Your task to perform on an android device: Open Yahoo.com Image 0: 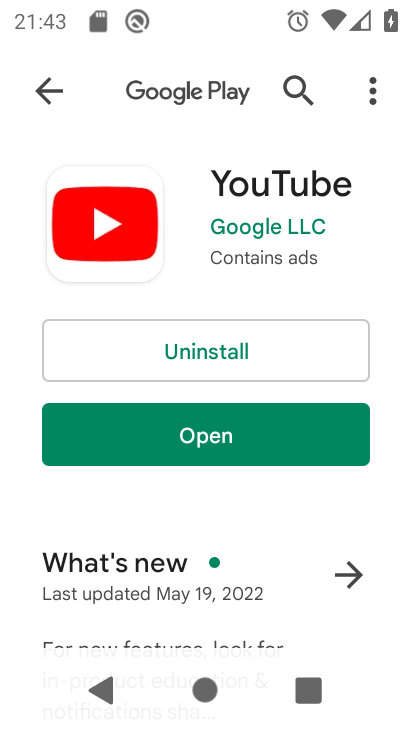
Step 0: press home button
Your task to perform on an android device: Open Yahoo.com Image 1: 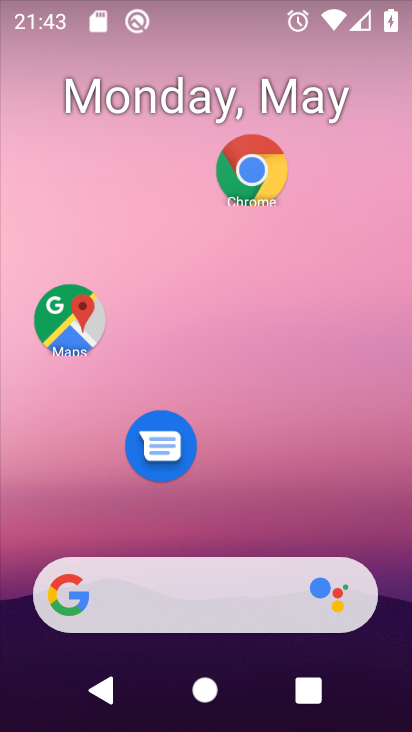
Step 1: click (252, 159)
Your task to perform on an android device: Open Yahoo.com Image 2: 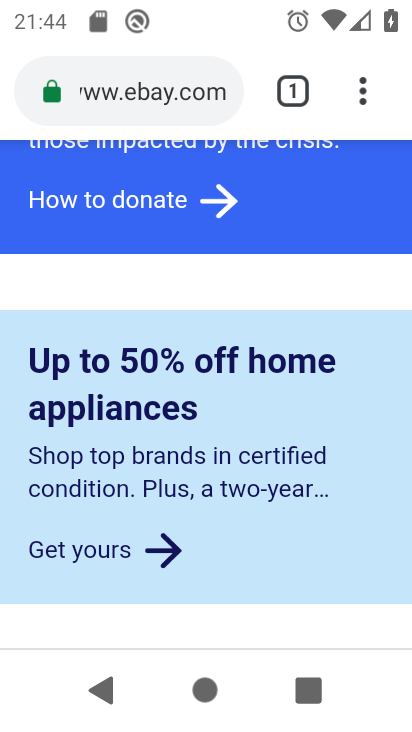
Step 2: click (292, 85)
Your task to perform on an android device: Open Yahoo.com Image 3: 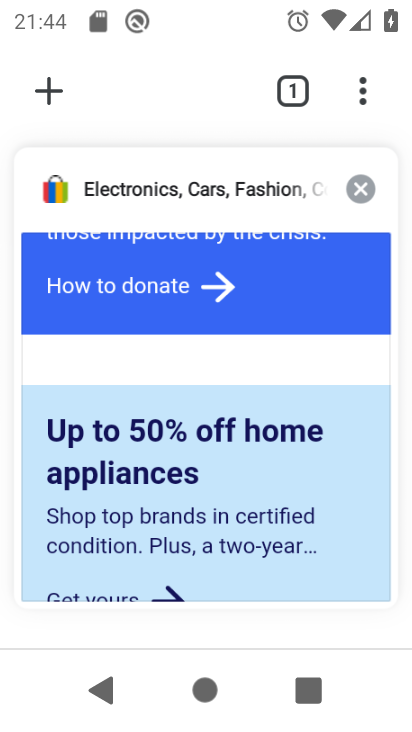
Step 3: click (358, 184)
Your task to perform on an android device: Open Yahoo.com Image 4: 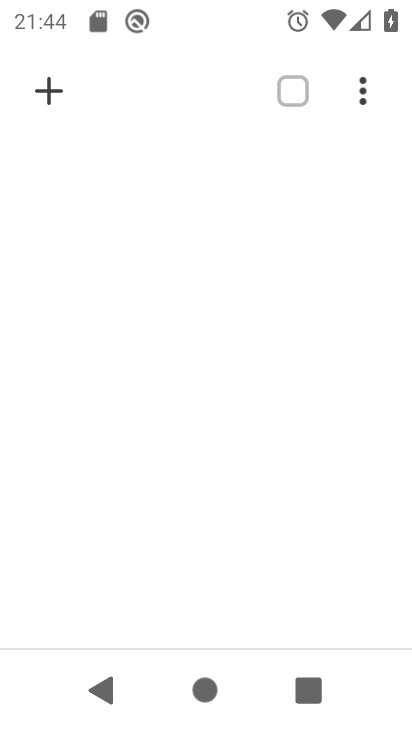
Step 4: click (57, 94)
Your task to perform on an android device: Open Yahoo.com Image 5: 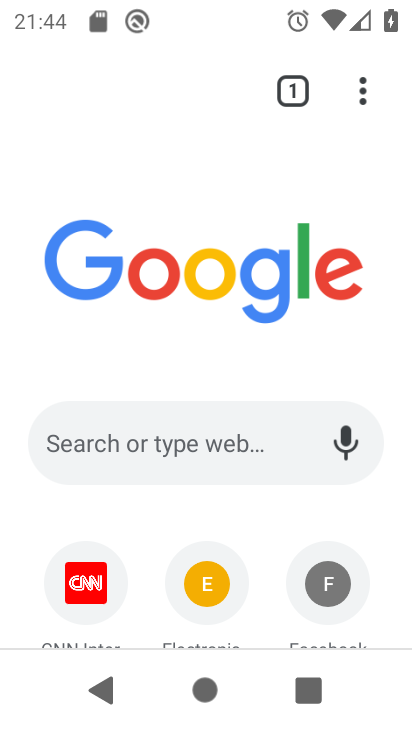
Step 5: click (114, 431)
Your task to perform on an android device: Open Yahoo.com Image 6: 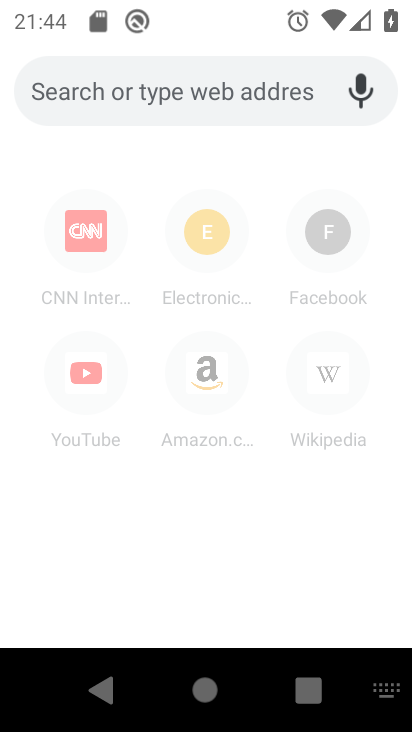
Step 6: type "yahoo.com"
Your task to perform on an android device: Open Yahoo.com Image 7: 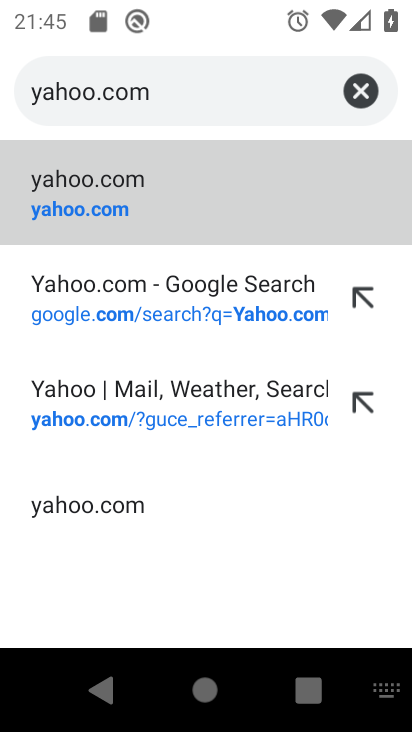
Step 7: click (158, 216)
Your task to perform on an android device: Open Yahoo.com Image 8: 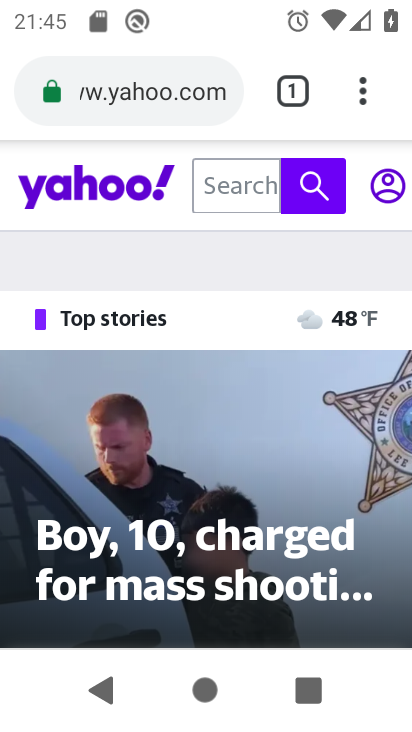
Step 8: task complete